Your task to perform on an android device: turn on bluetooth scan Image 0: 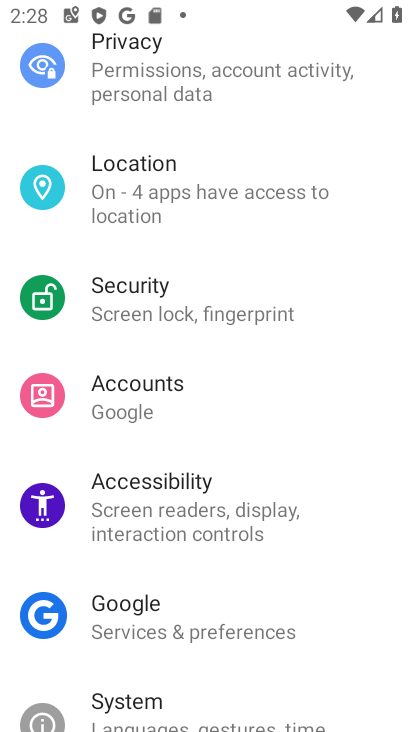
Step 0: press home button
Your task to perform on an android device: turn on bluetooth scan Image 1: 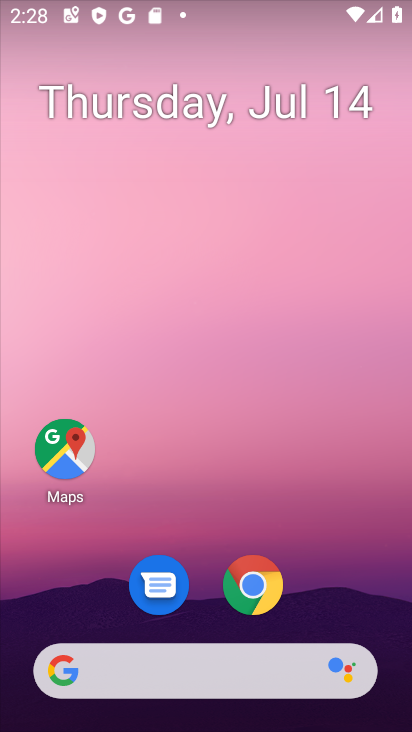
Step 1: drag from (312, 542) to (232, 38)
Your task to perform on an android device: turn on bluetooth scan Image 2: 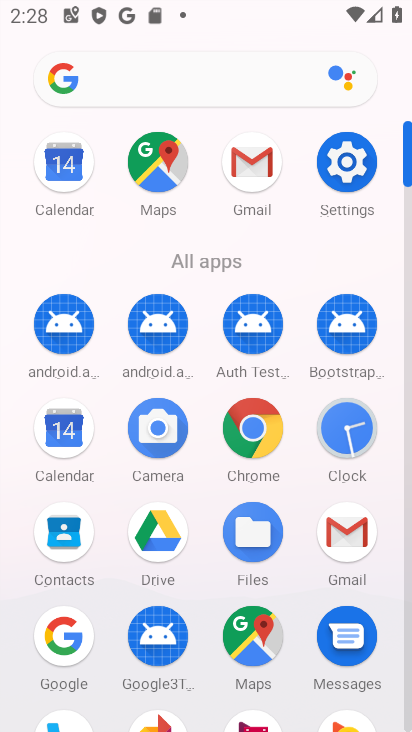
Step 2: click (339, 165)
Your task to perform on an android device: turn on bluetooth scan Image 3: 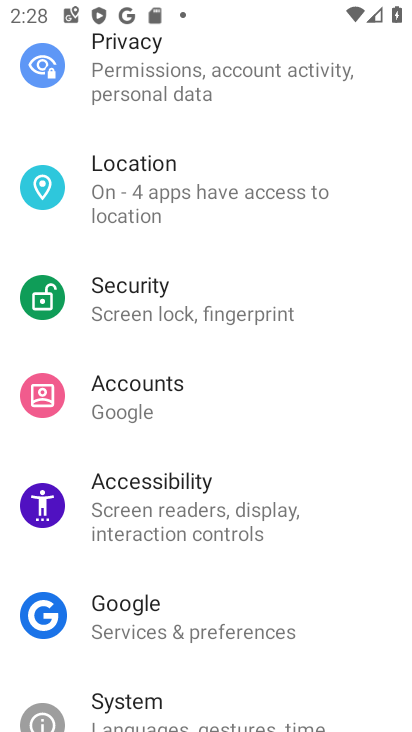
Step 3: click (206, 185)
Your task to perform on an android device: turn on bluetooth scan Image 4: 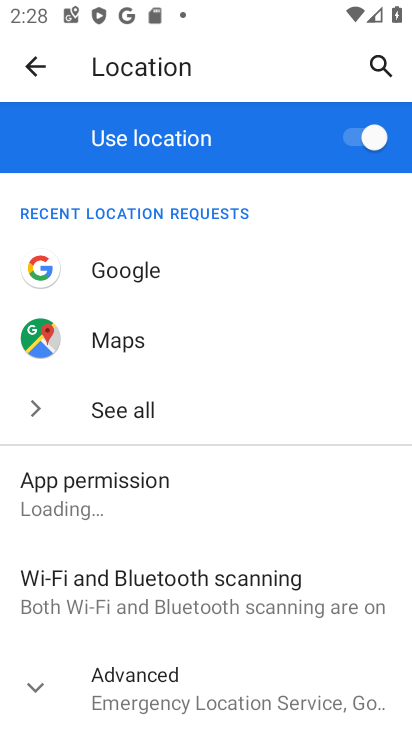
Step 4: click (270, 590)
Your task to perform on an android device: turn on bluetooth scan Image 5: 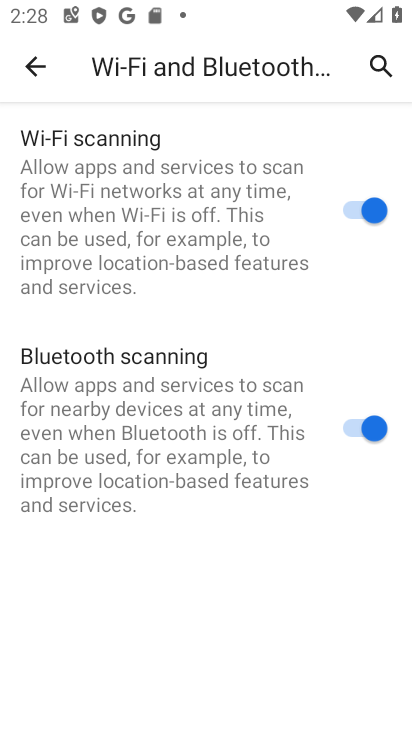
Step 5: task complete